Your task to perform on an android device: turn pop-ups off in chrome Image 0: 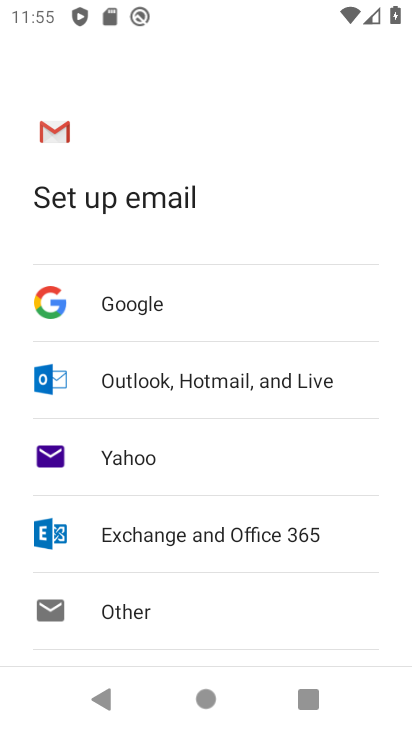
Step 0: press back button
Your task to perform on an android device: turn pop-ups off in chrome Image 1: 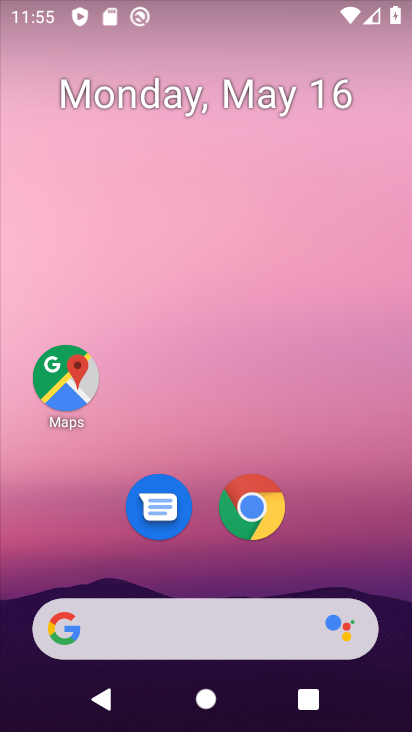
Step 1: click (255, 509)
Your task to perform on an android device: turn pop-ups off in chrome Image 2: 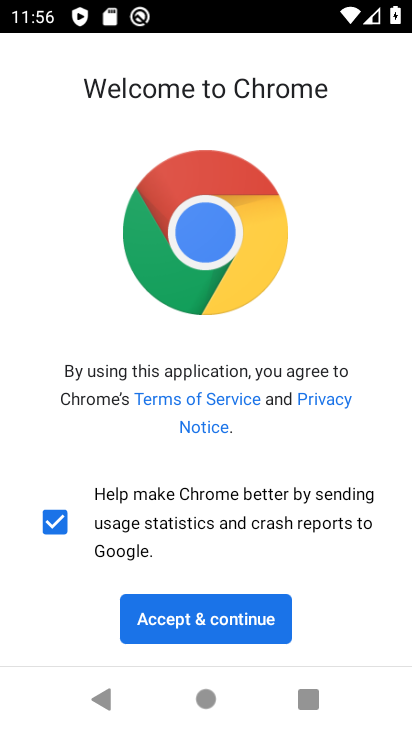
Step 2: click (214, 614)
Your task to perform on an android device: turn pop-ups off in chrome Image 3: 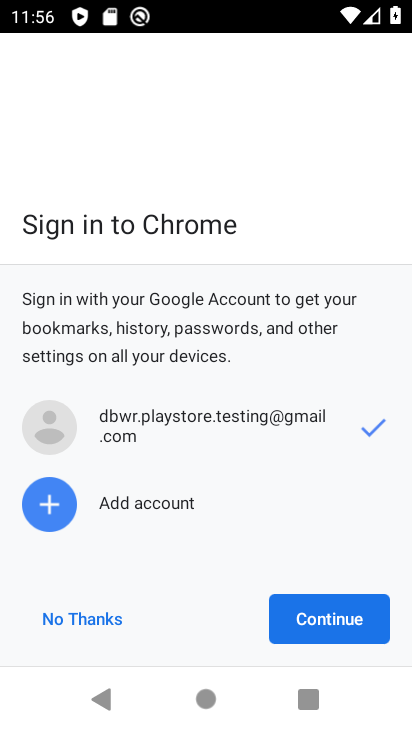
Step 3: click (308, 619)
Your task to perform on an android device: turn pop-ups off in chrome Image 4: 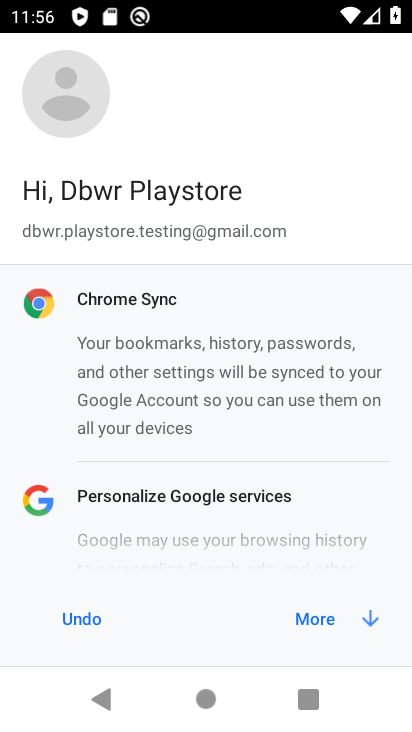
Step 4: click (309, 616)
Your task to perform on an android device: turn pop-ups off in chrome Image 5: 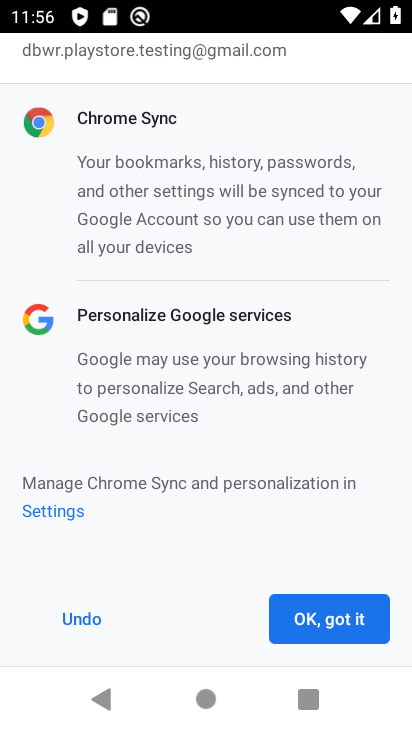
Step 5: click (312, 619)
Your task to perform on an android device: turn pop-ups off in chrome Image 6: 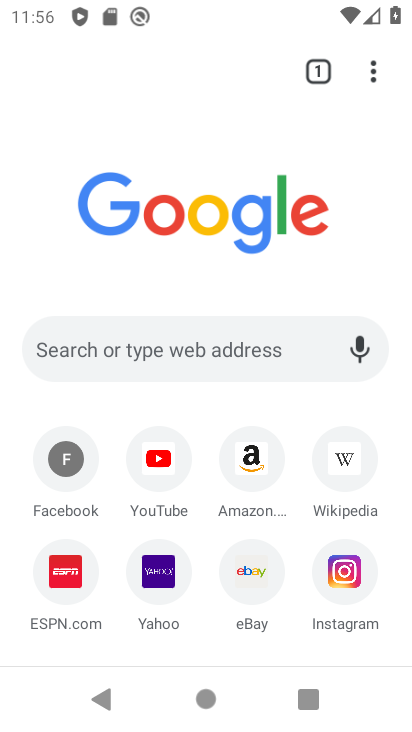
Step 6: click (372, 69)
Your task to perform on an android device: turn pop-ups off in chrome Image 7: 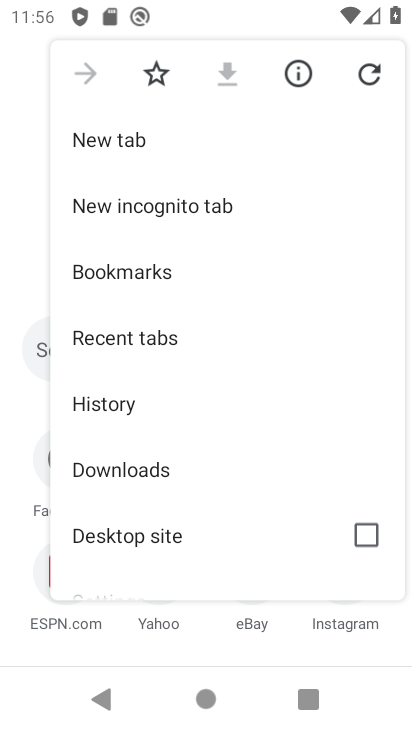
Step 7: drag from (254, 553) to (224, 313)
Your task to perform on an android device: turn pop-ups off in chrome Image 8: 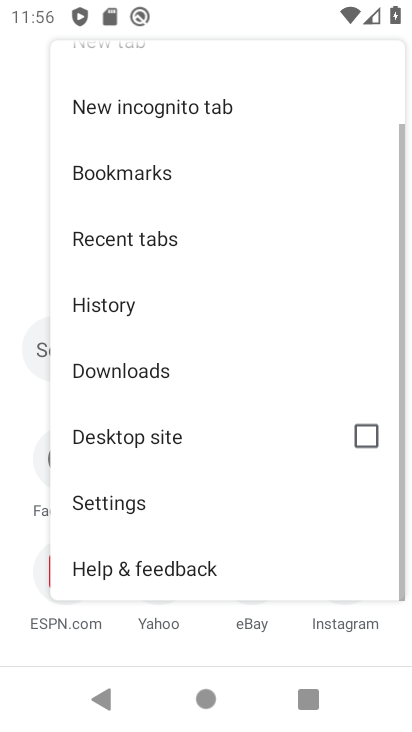
Step 8: click (86, 508)
Your task to perform on an android device: turn pop-ups off in chrome Image 9: 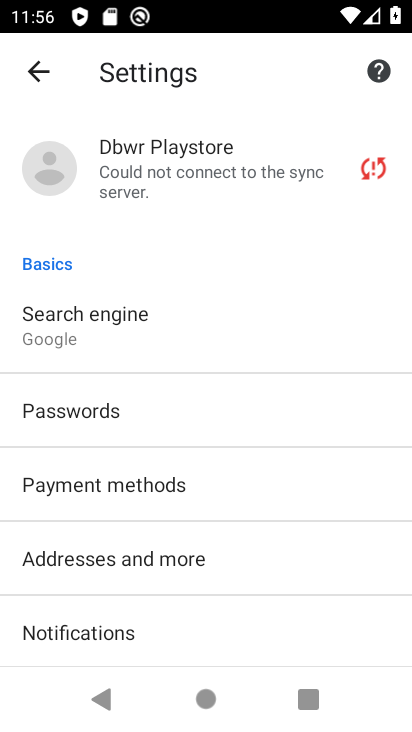
Step 9: drag from (256, 617) to (236, 447)
Your task to perform on an android device: turn pop-ups off in chrome Image 10: 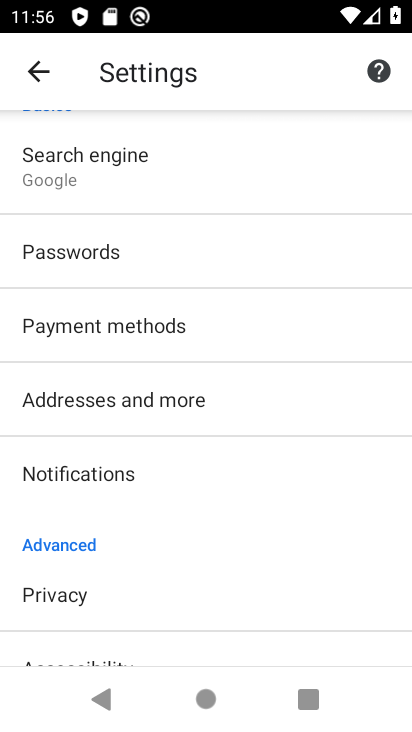
Step 10: drag from (281, 616) to (271, 496)
Your task to perform on an android device: turn pop-ups off in chrome Image 11: 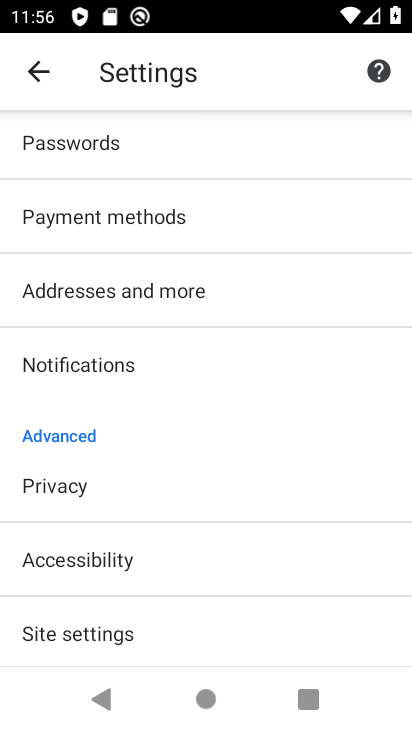
Step 11: drag from (206, 598) to (200, 467)
Your task to perform on an android device: turn pop-ups off in chrome Image 12: 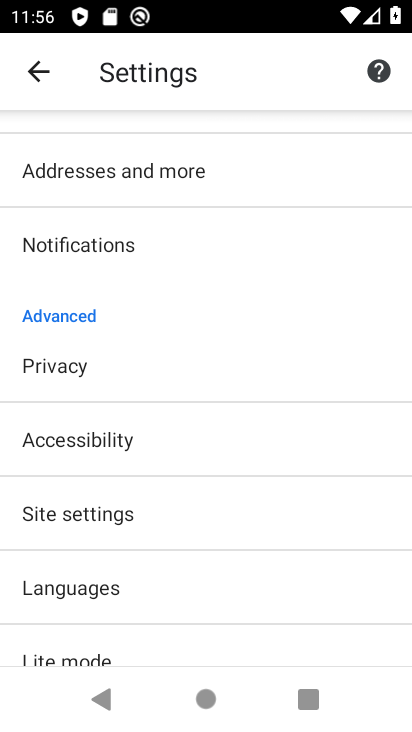
Step 12: click (92, 503)
Your task to perform on an android device: turn pop-ups off in chrome Image 13: 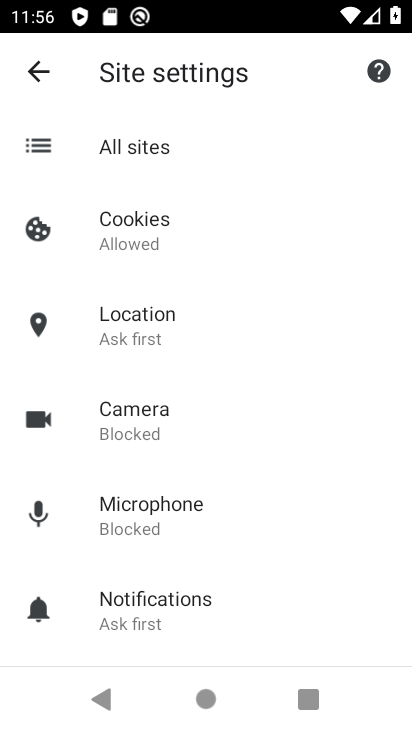
Step 13: click (257, 487)
Your task to perform on an android device: turn pop-ups off in chrome Image 14: 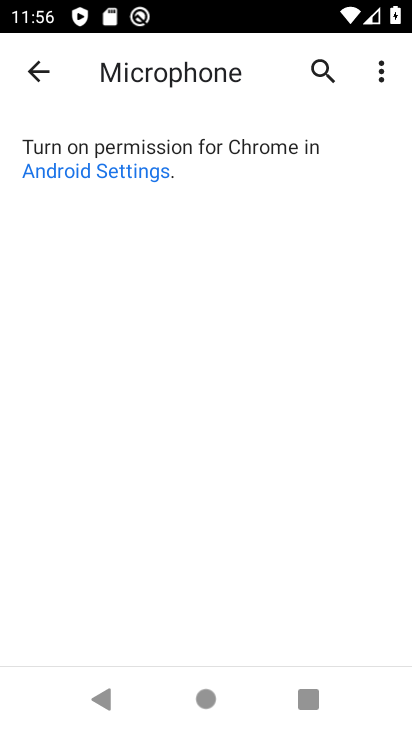
Step 14: click (37, 71)
Your task to perform on an android device: turn pop-ups off in chrome Image 15: 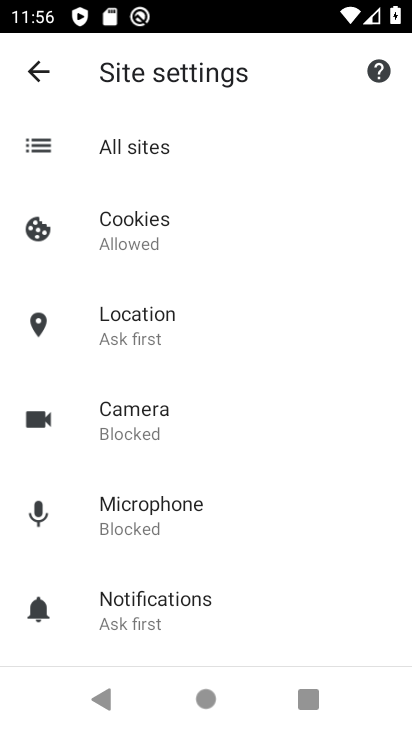
Step 15: drag from (265, 601) to (244, 407)
Your task to perform on an android device: turn pop-ups off in chrome Image 16: 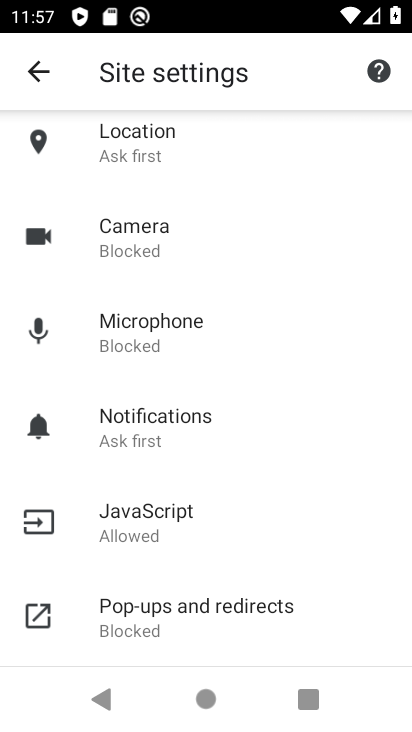
Step 16: click (161, 614)
Your task to perform on an android device: turn pop-ups off in chrome Image 17: 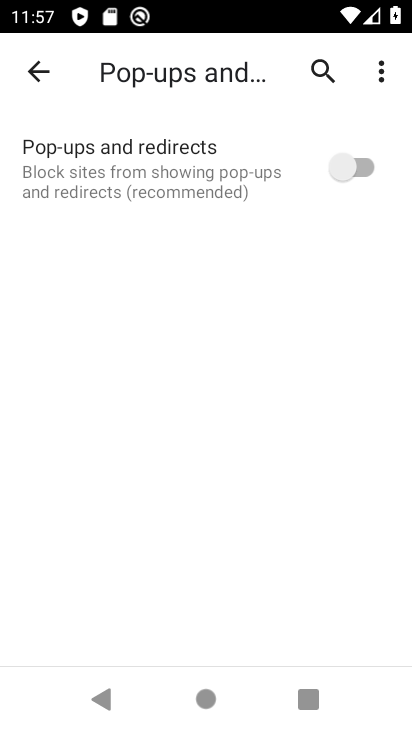
Step 17: task complete